Your task to perform on an android device: Open calendar and show me the second week of next month Image 0: 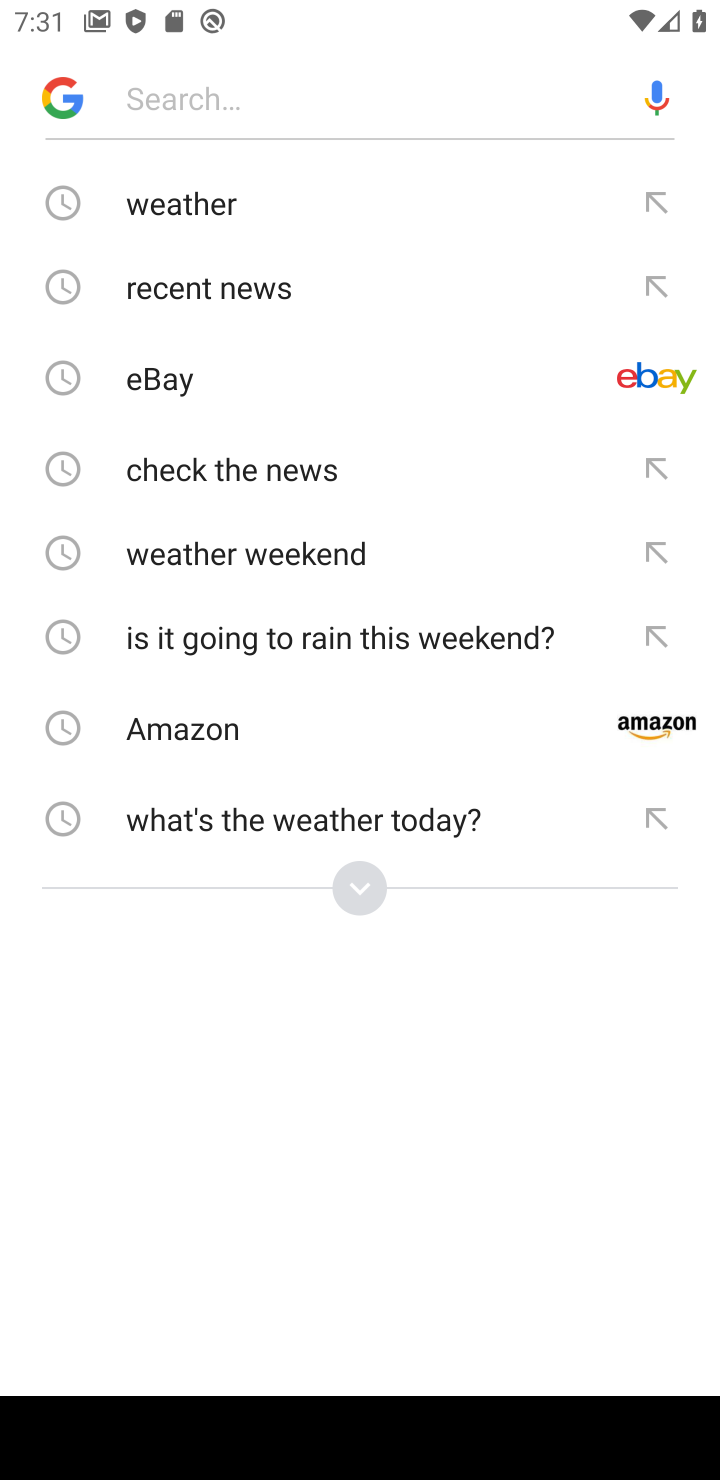
Step 0: press home button
Your task to perform on an android device: Open calendar and show me the second week of next month Image 1: 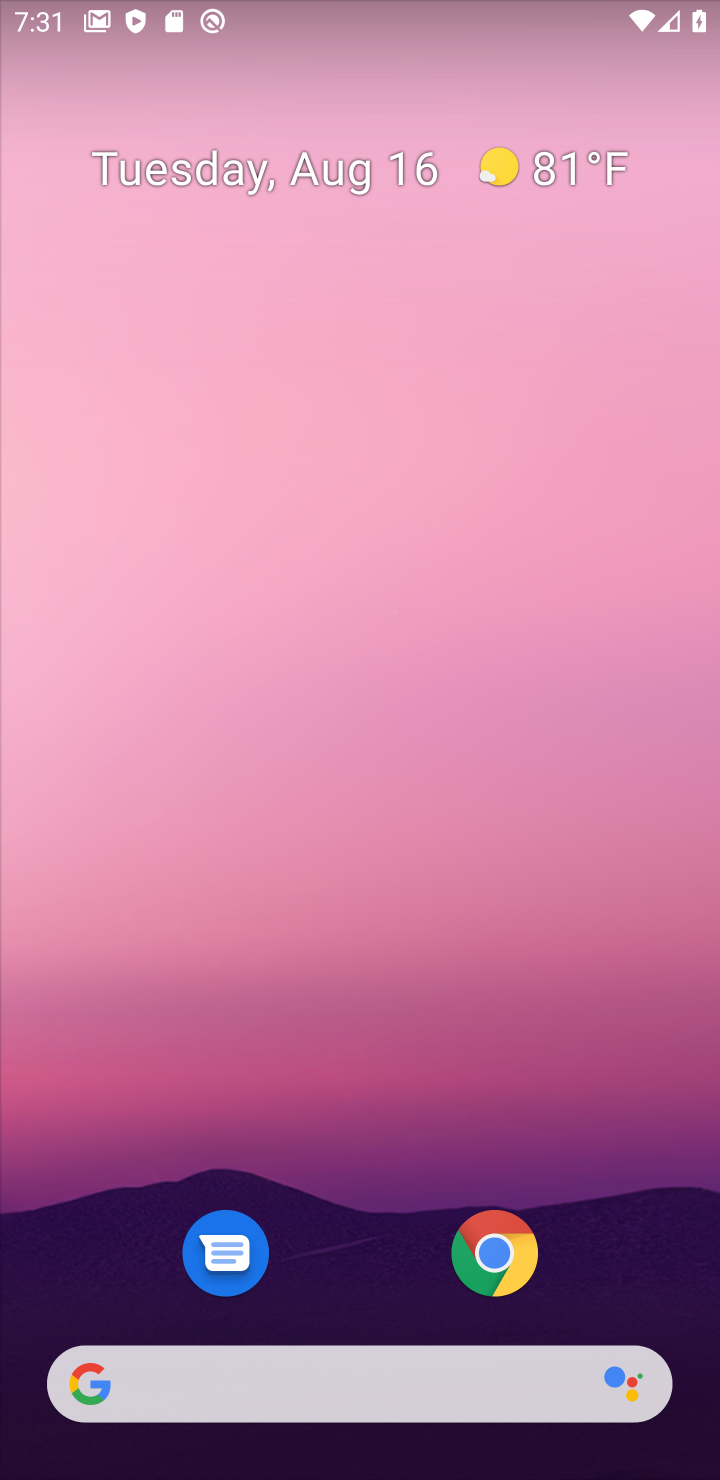
Step 1: drag from (382, 586) to (483, 267)
Your task to perform on an android device: Open calendar and show me the second week of next month Image 2: 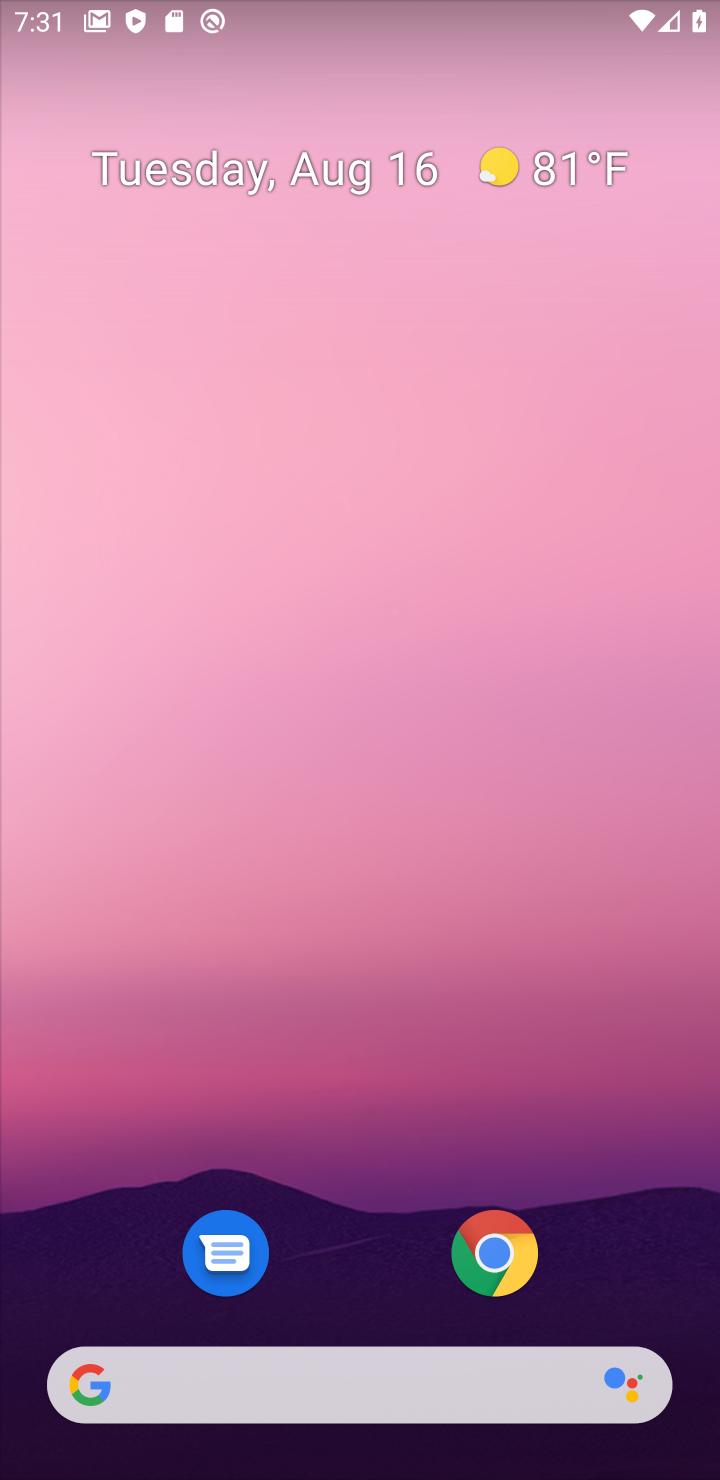
Step 2: drag from (343, 1383) to (529, 2)
Your task to perform on an android device: Open calendar and show me the second week of next month Image 3: 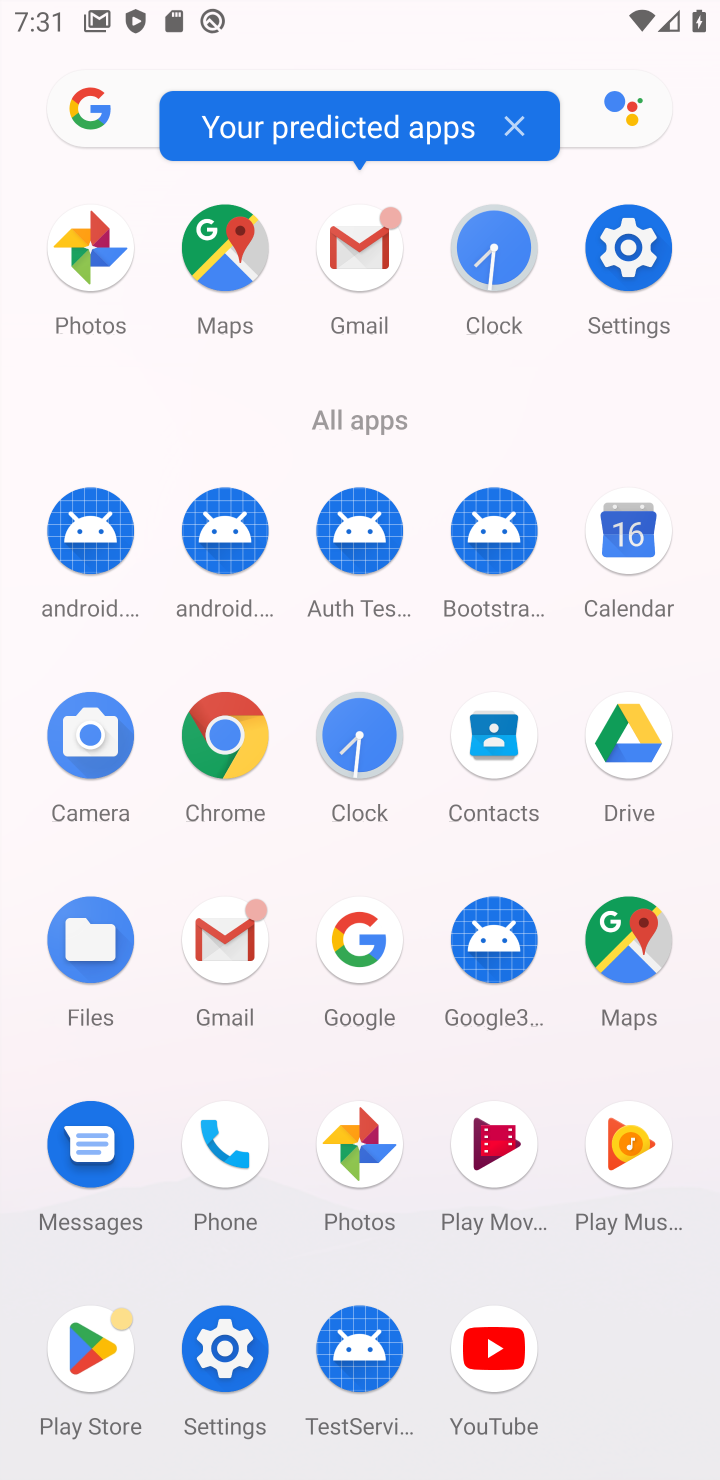
Step 3: click (628, 548)
Your task to perform on an android device: Open calendar and show me the second week of next month Image 4: 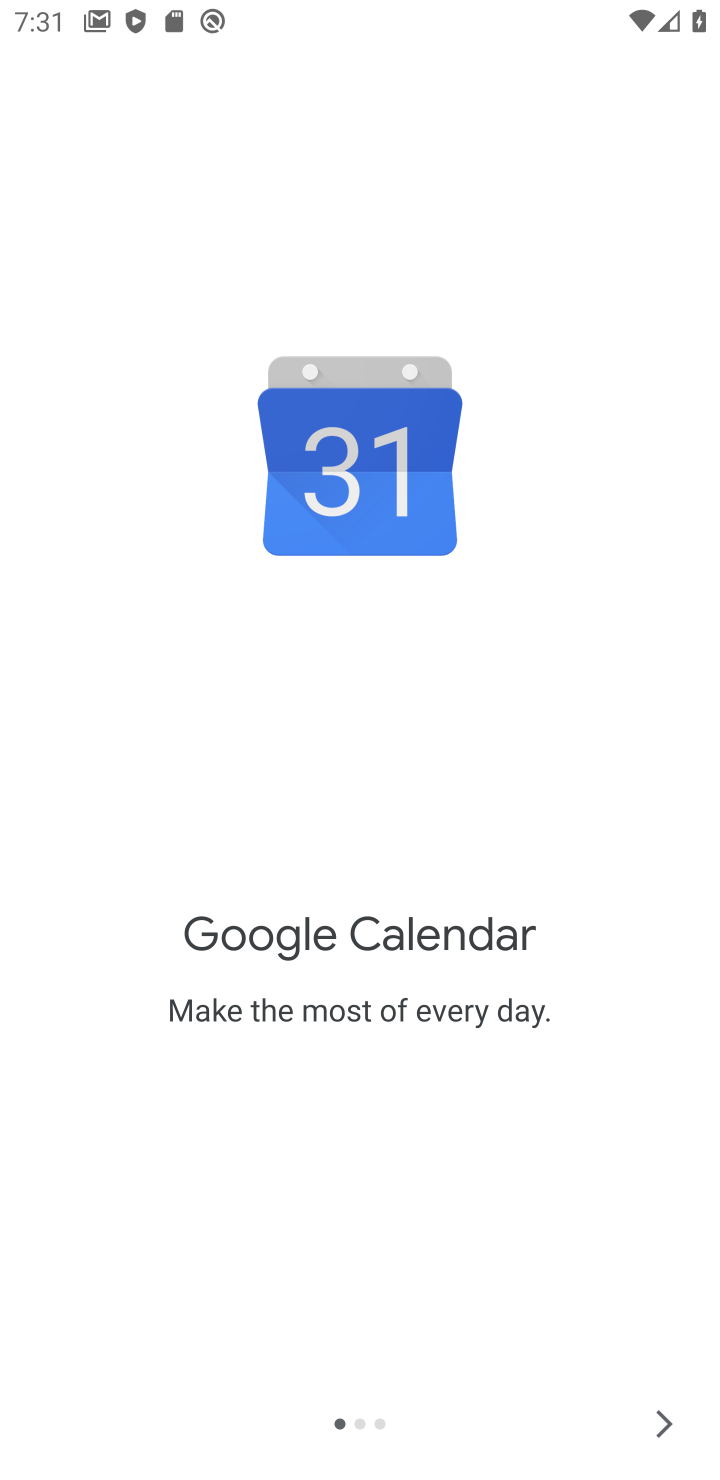
Step 4: click (666, 1431)
Your task to perform on an android device: Open calendar and show me the second week of next month Image 5: 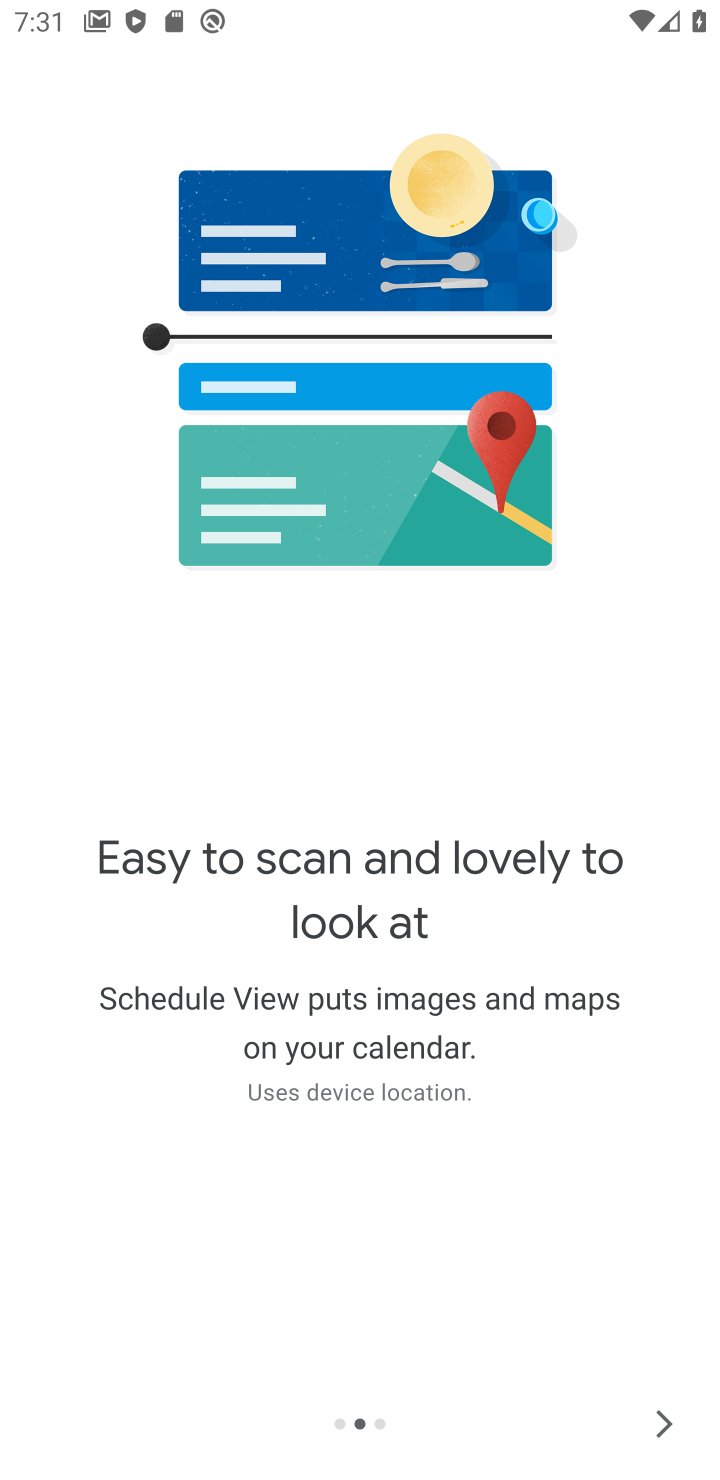
Step 5: click (666, 1431)
Your task to perform on an android device: Open calendar and show me the second week of next month Image 6: 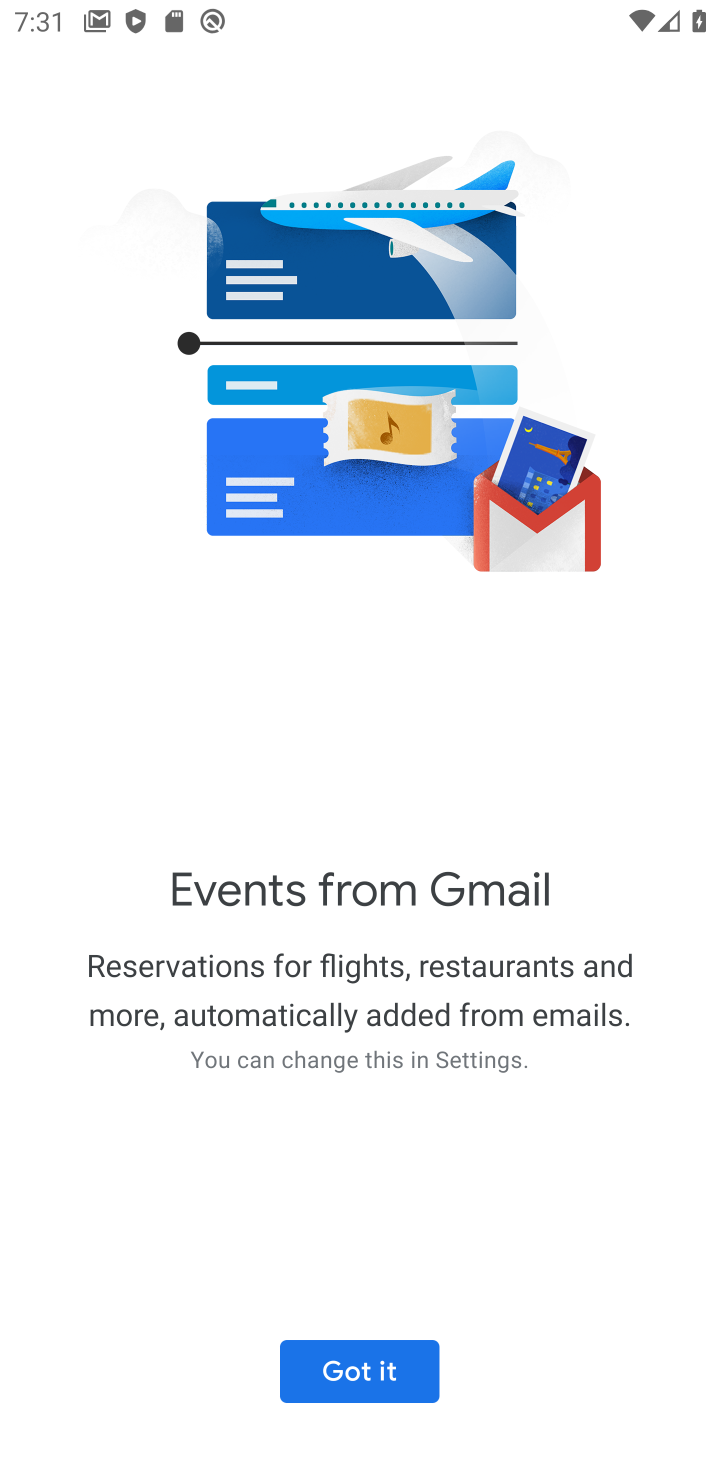
Step 6: click (366, 1370)
Your task to perform on an android device: Open calendar and show me the second week of next month Image 7: 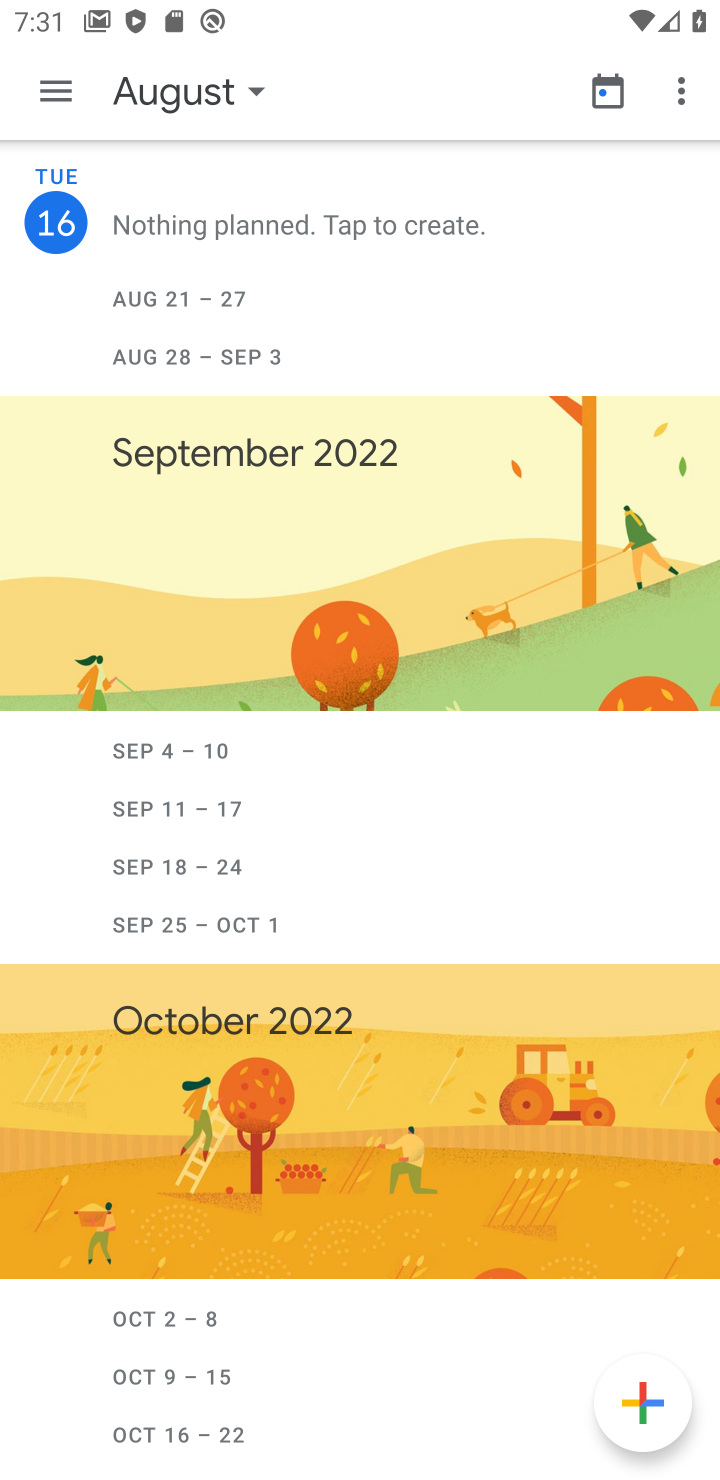
Step 7: click (255, 93)
Your task to perform on an android device: Open calendar and show me the second week of next month Image 8: 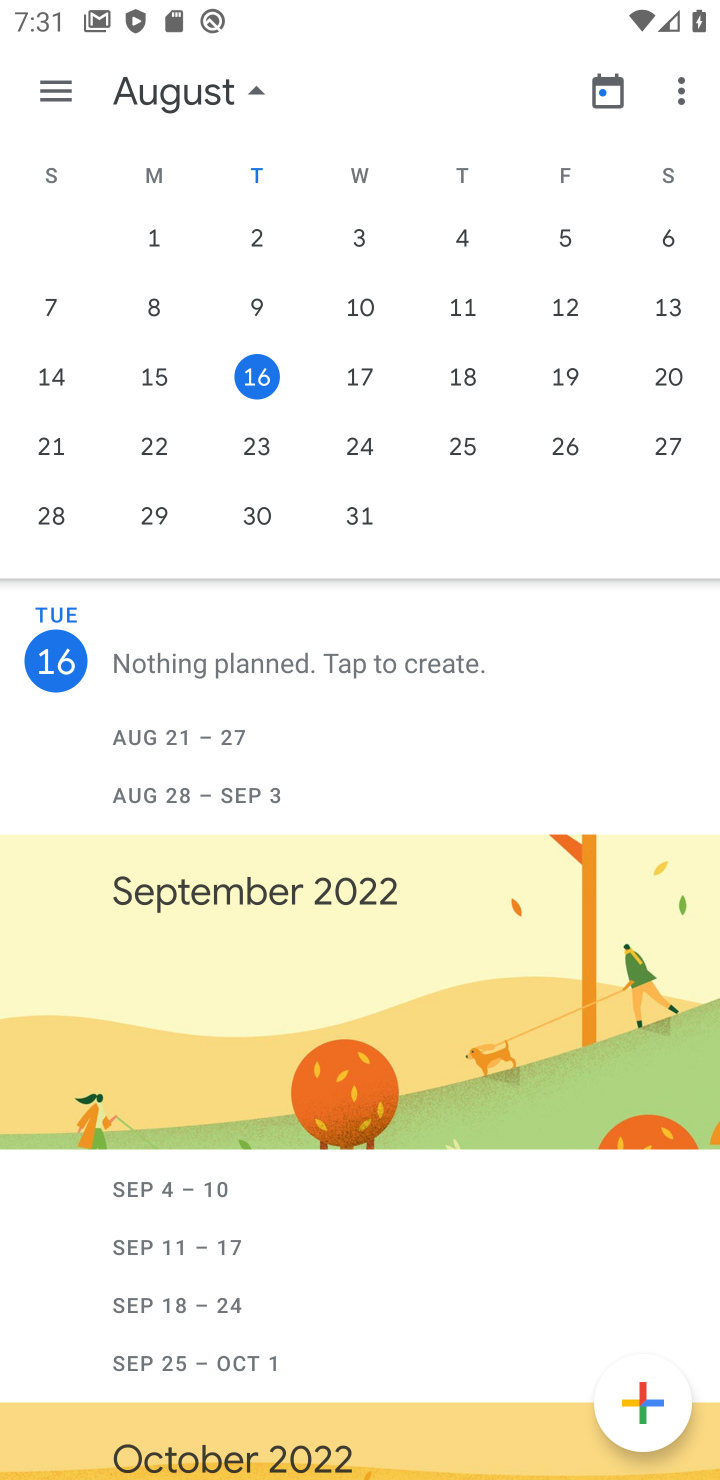
Step 8: drag from (666, 342) to (9, 337)
Your task to perform on an android device: Open calendar and show me the second week of next month Image 9: 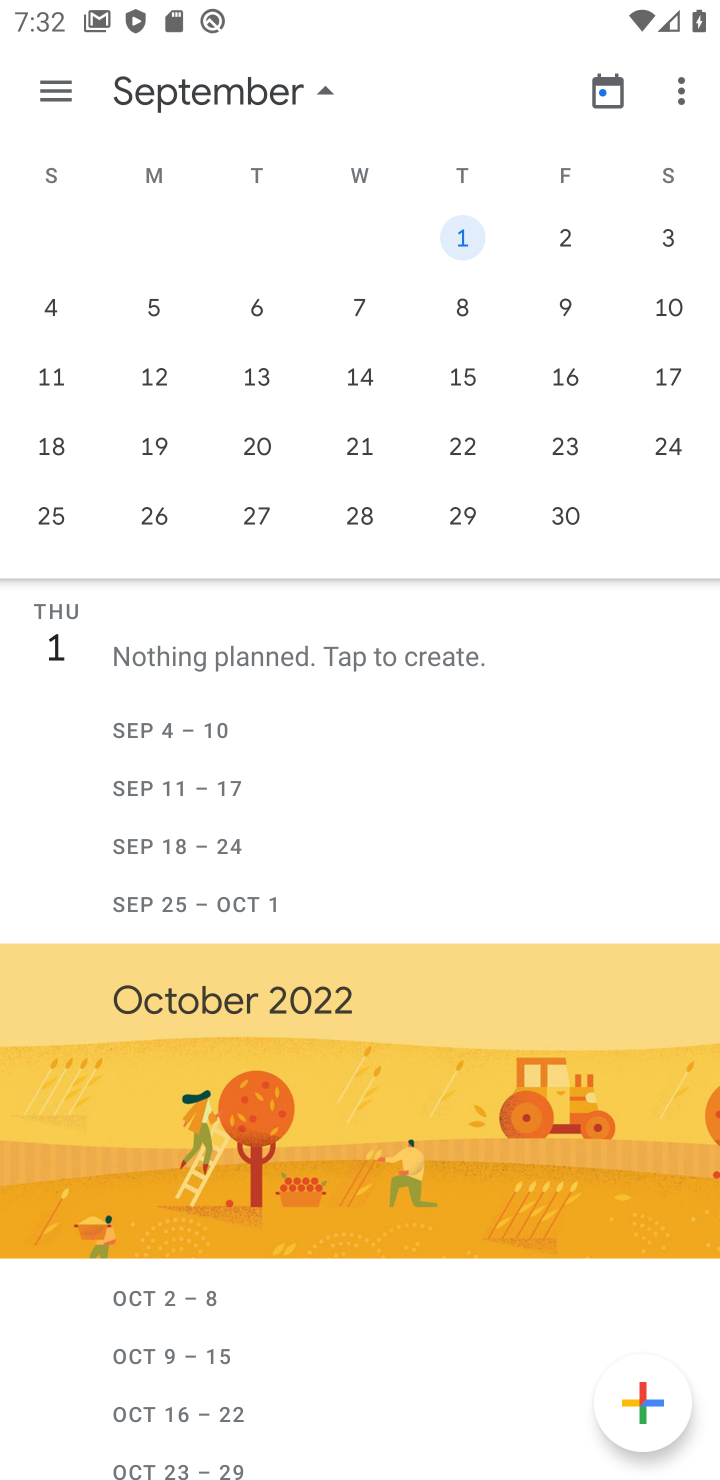
Step 9: click (136, 380)
Your task to perform on an android device: Open calendar and show me the second week of next month Image 10: 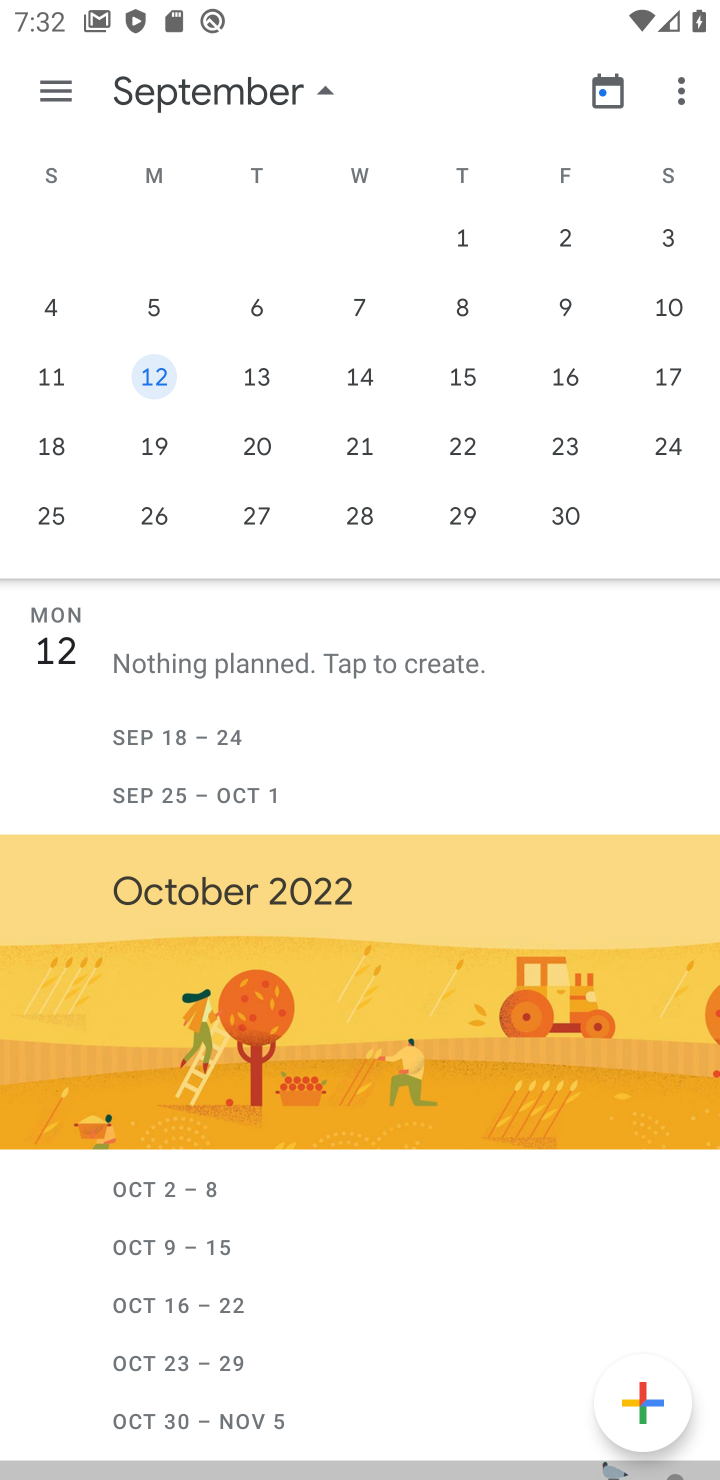
Step 10: click (59, 80)
Your task to perform on an android device: Open calendar and show me the second week of next month Image 11: 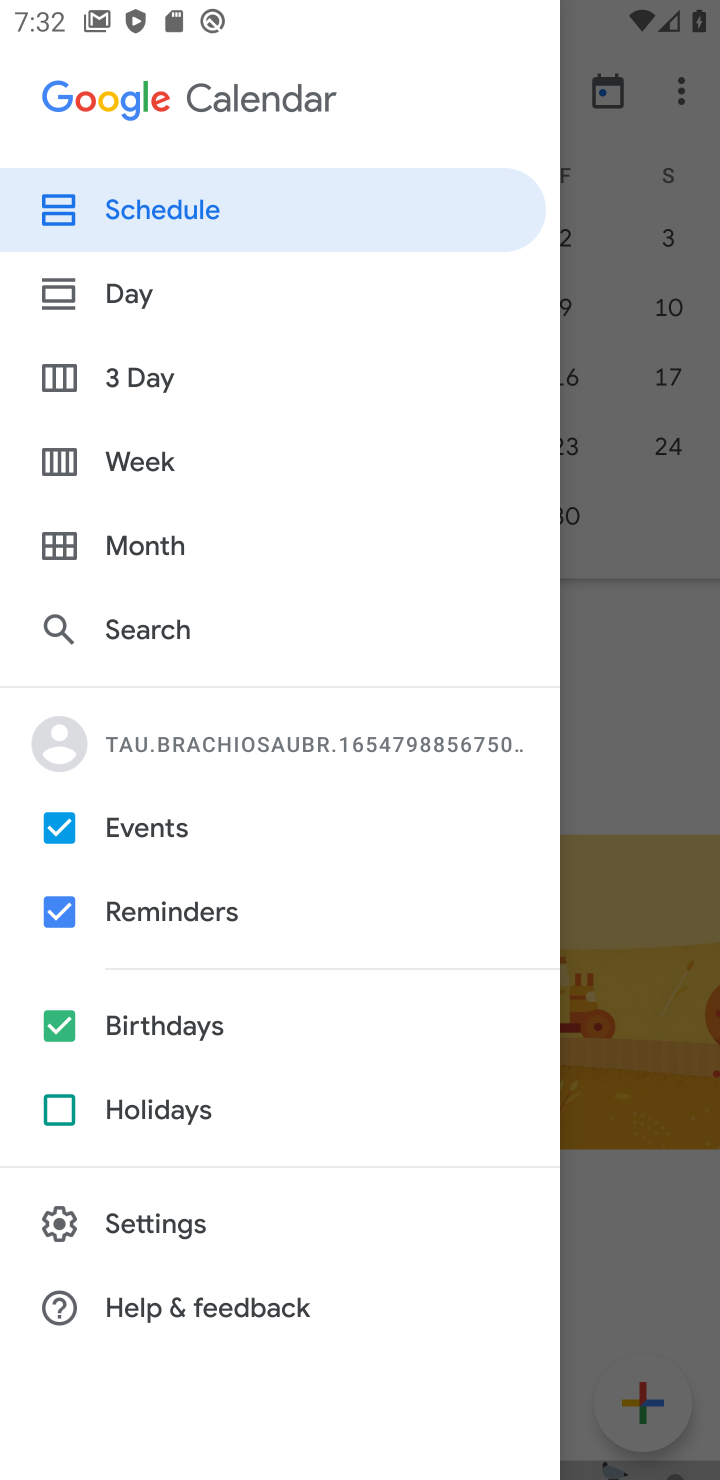
Step 11: click (152, 458)
Your task to perform on an android device: Open calendar and show me the second week of next month Image 12: 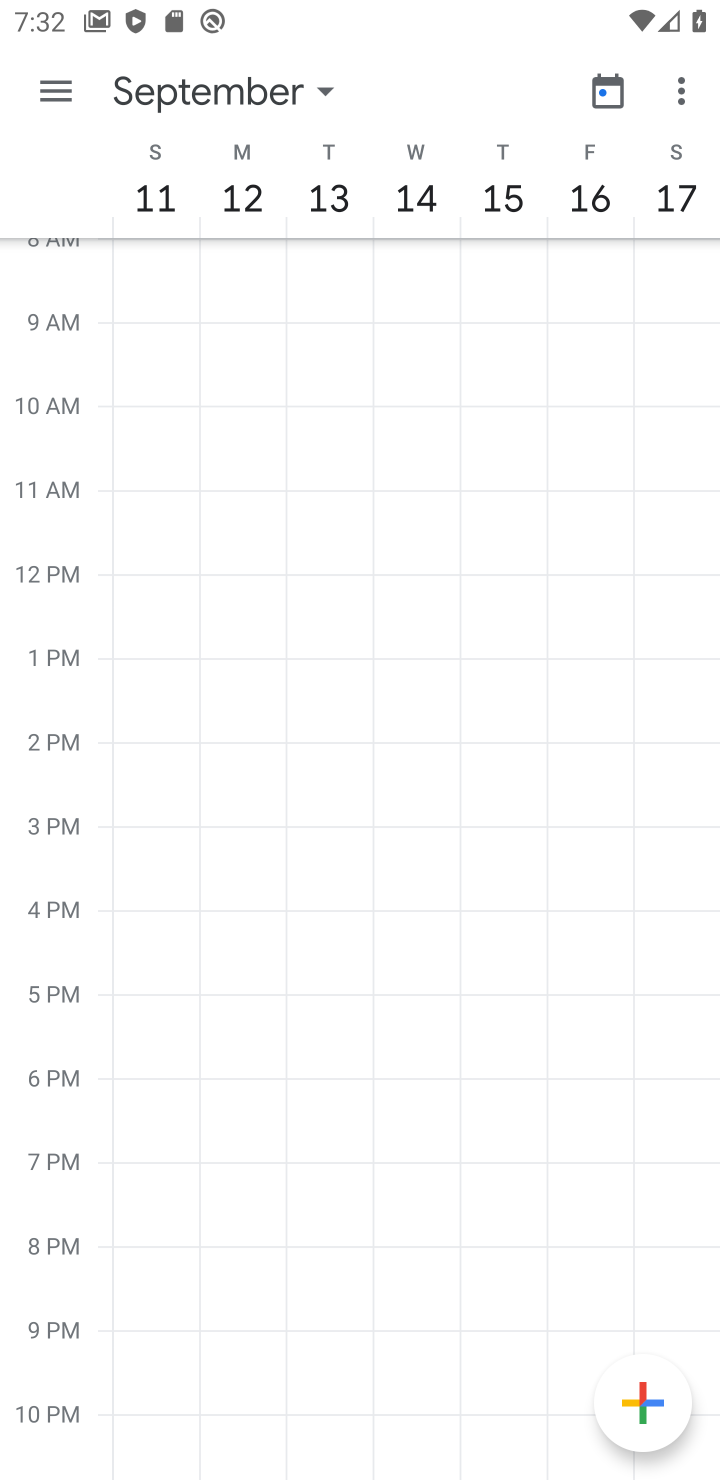
Step 12: task complete